Your task to perform on an android device: turn off improve location accuracy Image 0: 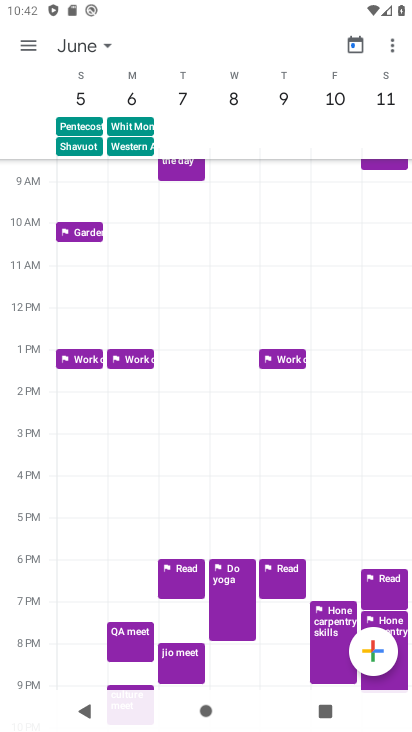
Step 0: press home button
Your task to perform on an android device: turn off improve location accuracy Image 1: 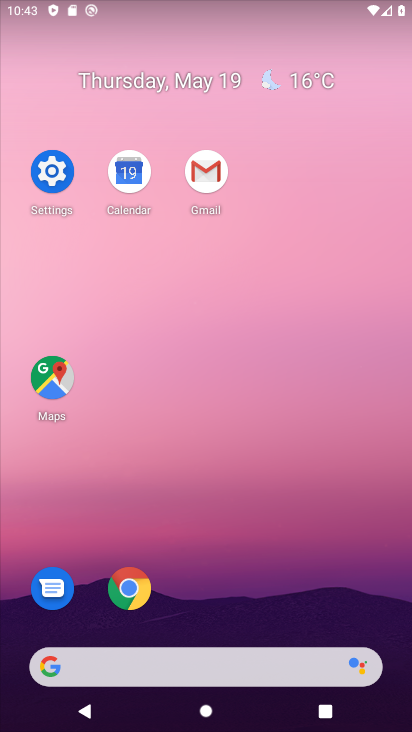
Step 1: click (60, 183)
Your task to perform on an android device: turn off improve location accuracy Image 2: 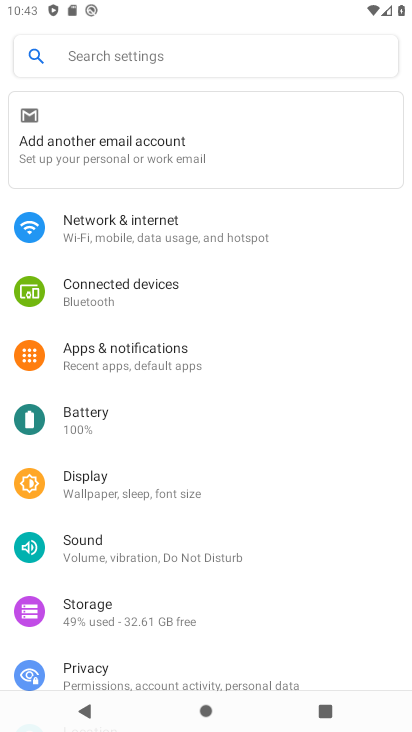
Step 2: drag from (259, 587) to (300, 244)
Your task to perform on an android device: turn off improve location accuracy Image 3: 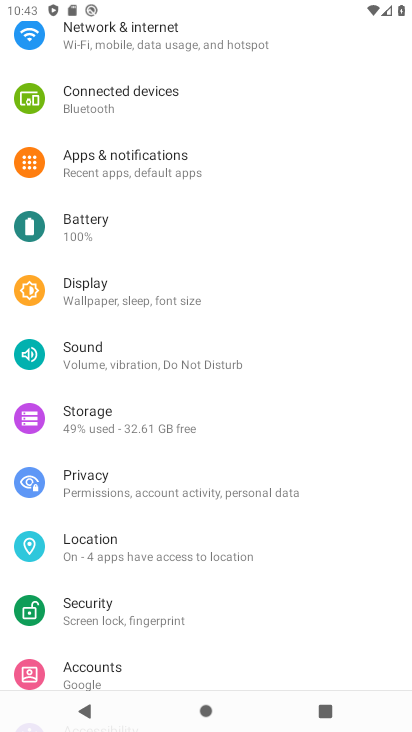
Step 3: click (231, 547)
Your task to perform on an android device: turn off improve location accuracy Image 4: 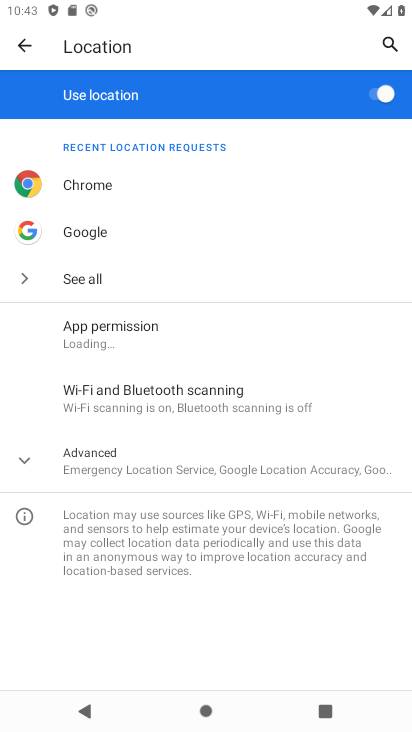
Step 4: click (205, 455)
Your task to perform on an android device: turn off improve location accuracy Image 5: 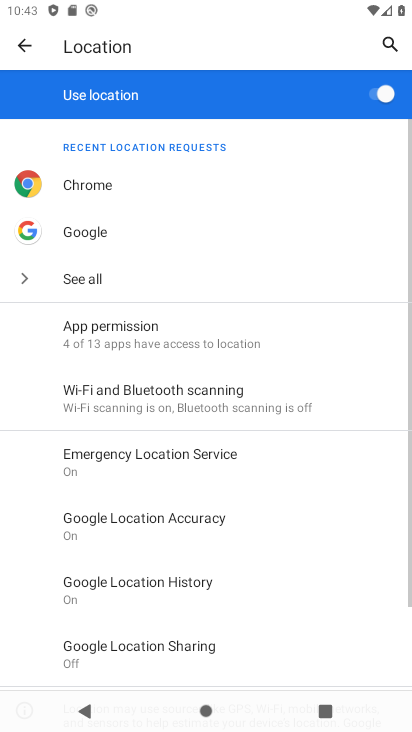
Step 5: click (195, 529)
Your task to perform on an android device: turn off improve location accuracy Image 6: 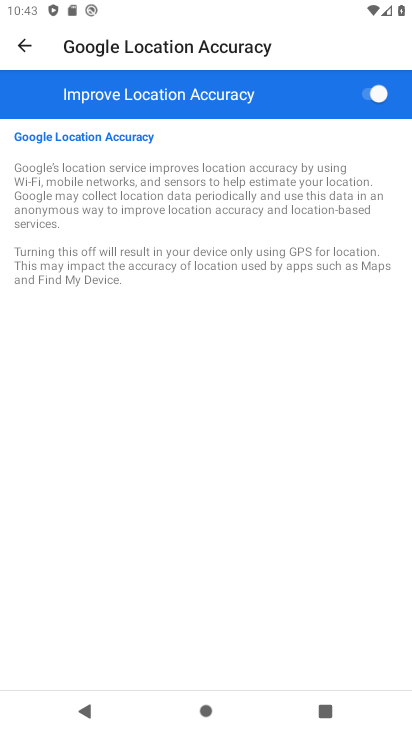
Step 6: click (386, 100)
Your task to perform on an android device: turn off improve location accuracy Image 7: 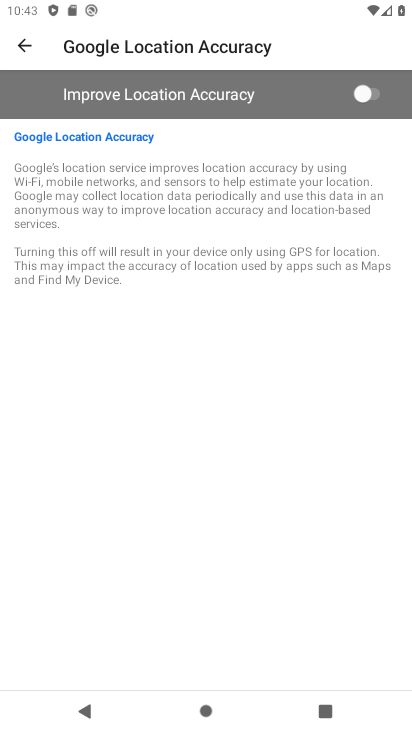
Step 7: task complete